Your task to perform on an android device: open chrome and create a bookmark for the current page Image 0: 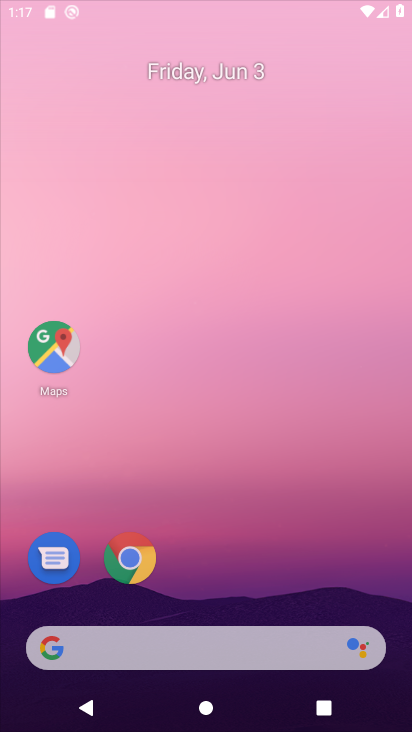
Step 0: click (247, 279)
Your task to perform on an android device: open chrome and create a bookmark for the current page Image 1: 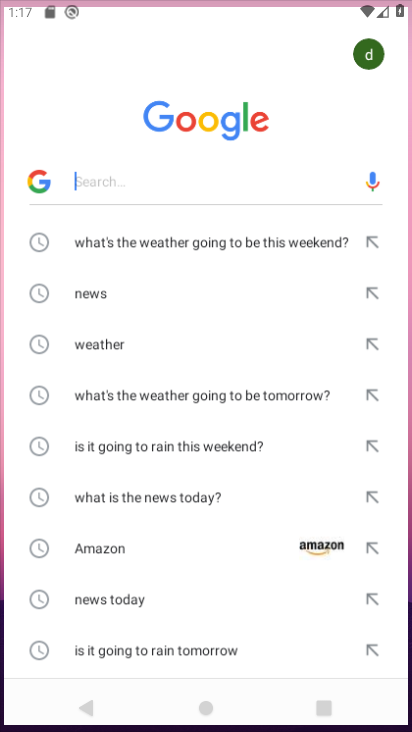
Step 1: press home button
Your task to perform on an android device: open chrome and create a bookmark for the current page Image 2: 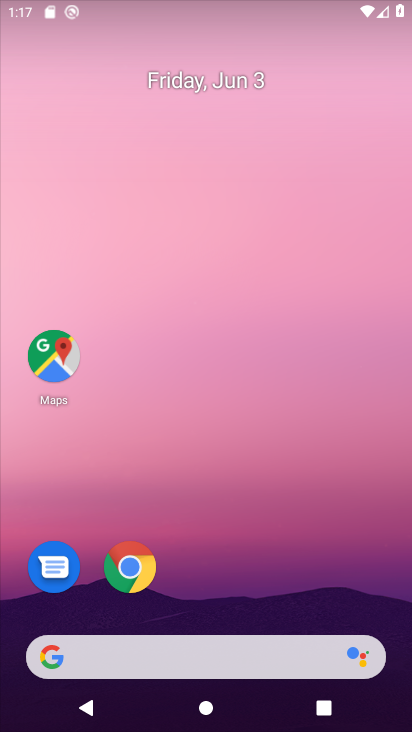
Step 2: drag from (224, 623) to (181, 217)
Your task to perform on an android device: open chrome and create a bookmark for the current page Image 3: 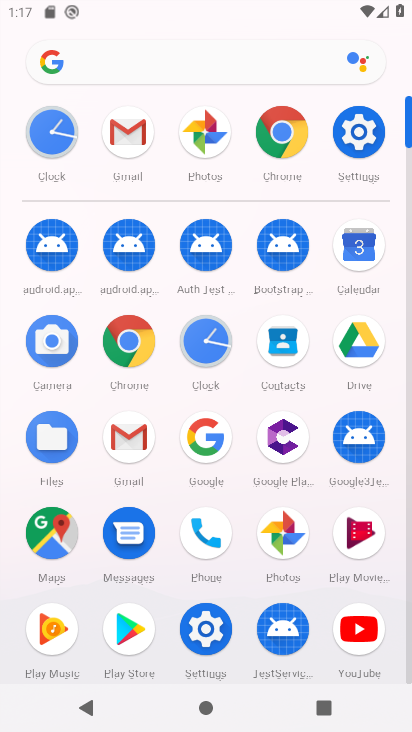
Step 3: click (270, 129)
Your task to perform on an android device: open chrome and create a bookmark for the current page Image 4: 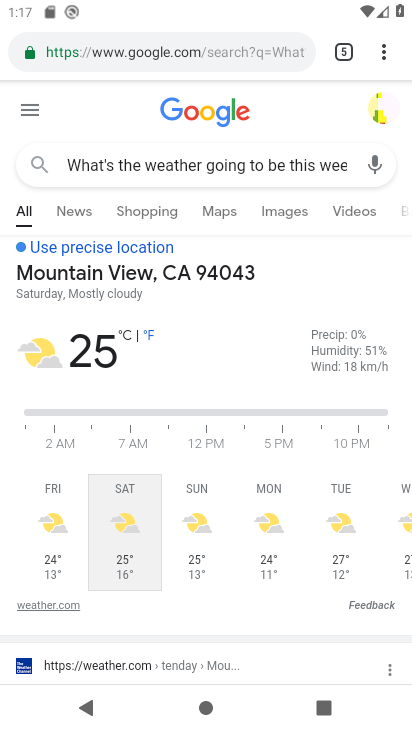
Step 4: click (383, 58)
Your task to perform on an android device: open chrome and create a bookmark for the current page Image 5: 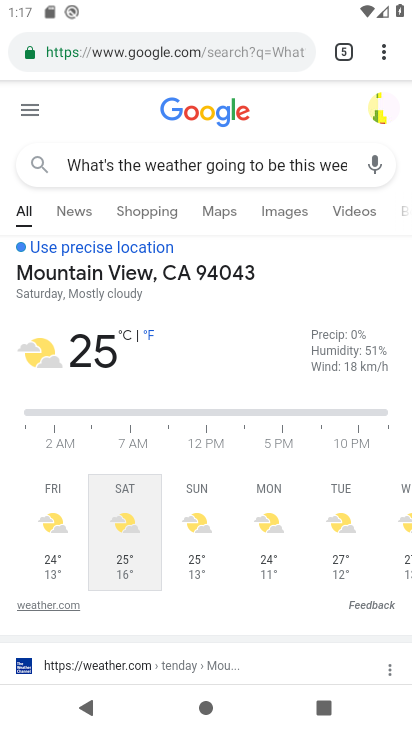
Step 5: click (371, 47)
Your task to perform on an android device: open chrome and create a bookmark for the current page Image 6: 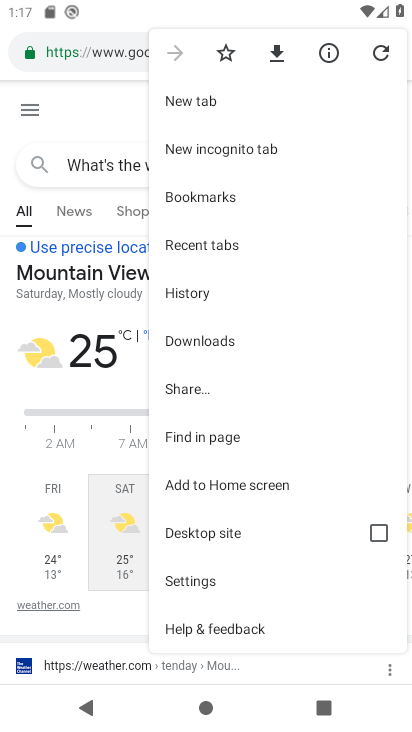
Step 6: click (220, 54)
Your task to perform on an android device: open chrome and create a bookmark for the current page Image 7: 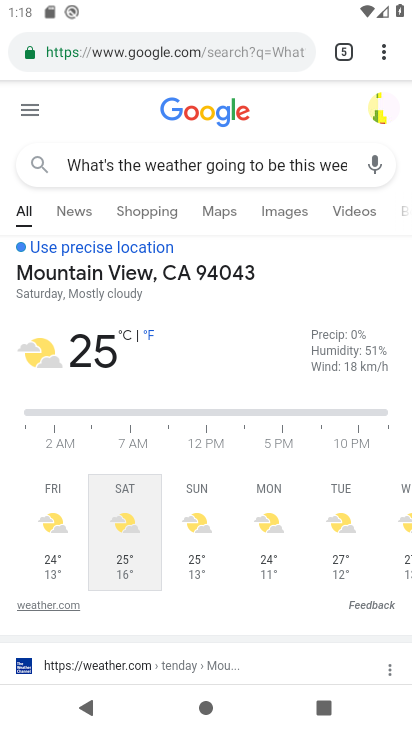
Step 7: task complete